Your task to perform on an android device: change alarm snooze length Image 0: 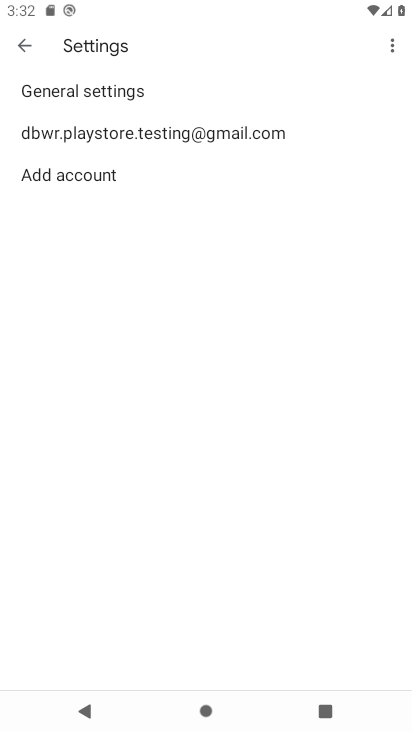
Step 0: press home button
Your task to perform on an android device: change alarm snooze length Image 1: 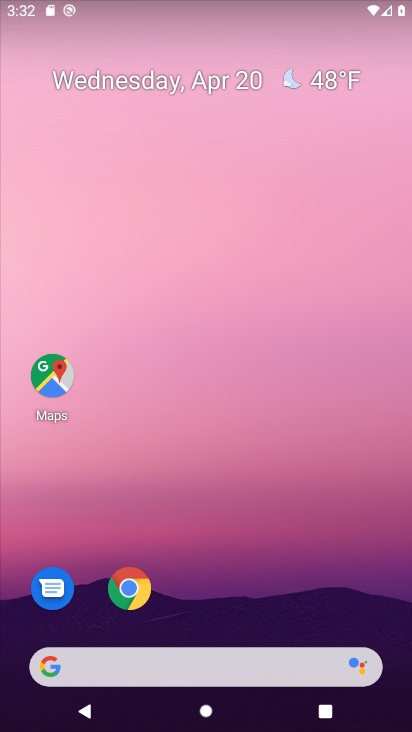
Step 1: drag from (321, 607) to (332, 171)
Your task to perform on an android device: change alarm snooze length Image 2: 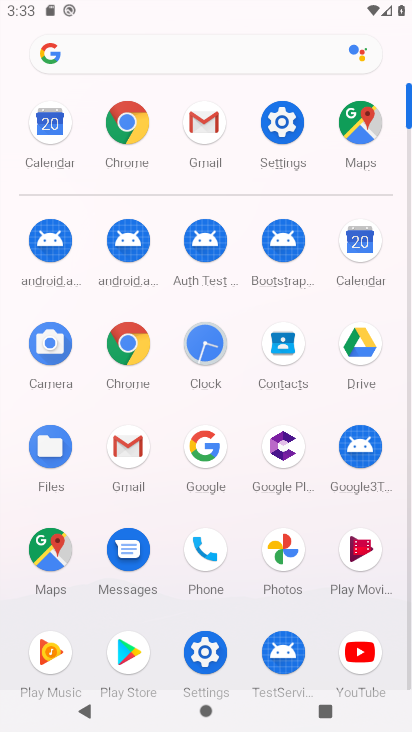
Step 2: click (210, 357)
Your task to perform on an android device: change alarm snooze length Image 3: 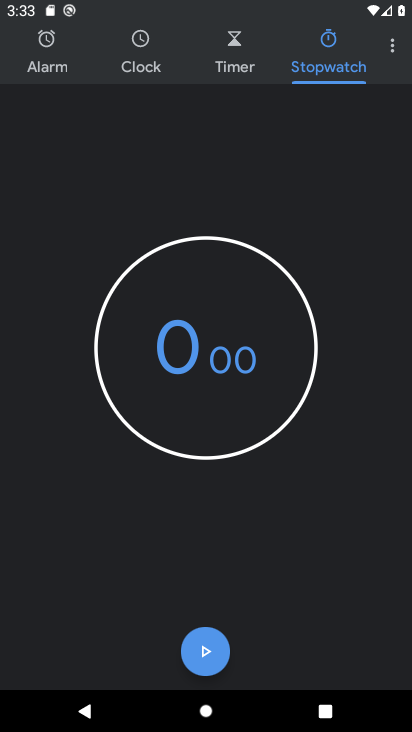
Step 3: click (394, 49)
Your task to perform on an android device: change alarm snooze length Image 4: 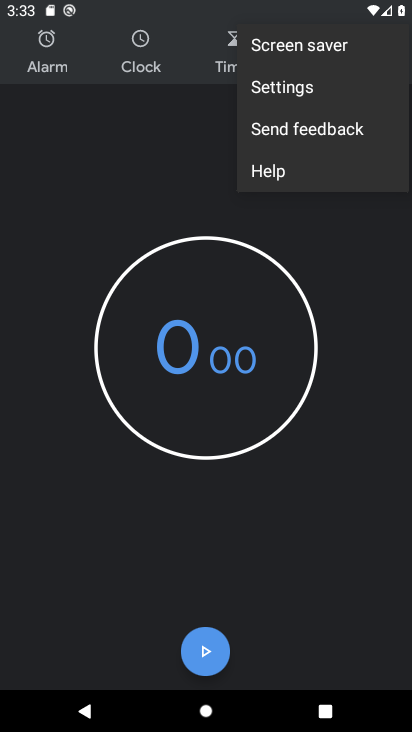
Step 4: click (317, 93)
Your task to perform on an android device: change alarm snooze length Image 5: 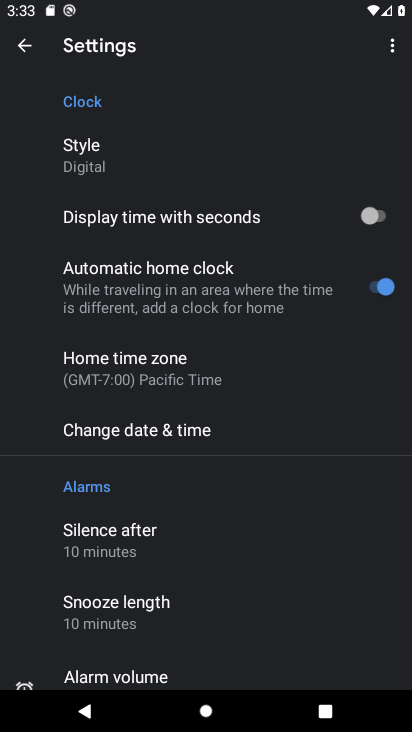
Step 5: drag from (328, 525) to (324, 390)
Your task to perform on an android device: change alarm snooze length Image 6: 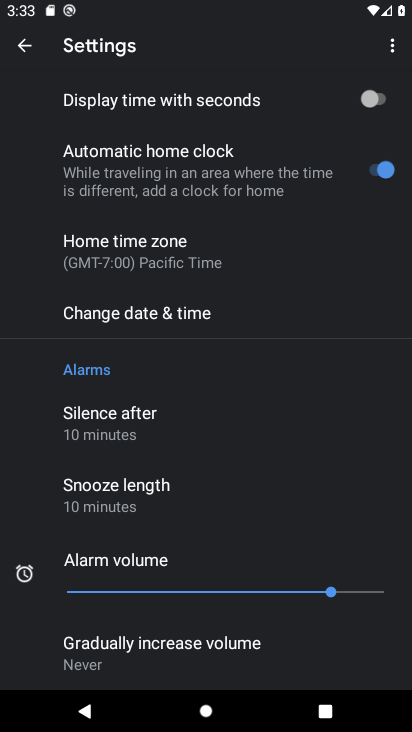
Step 6: drag from (316, 451) to (313, 330)
Your task to perform on an android device: change alarm snooze length Image 7: 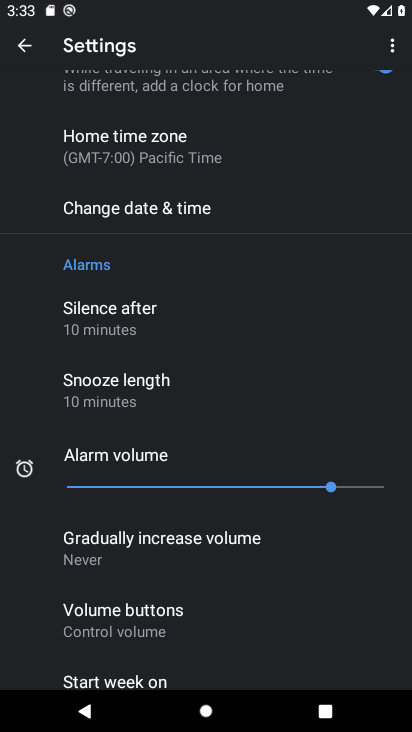
Step 7: drag from (345, 565) to (340, 380)
Your task to perform on an android device: change alarm snooze length Image 8: 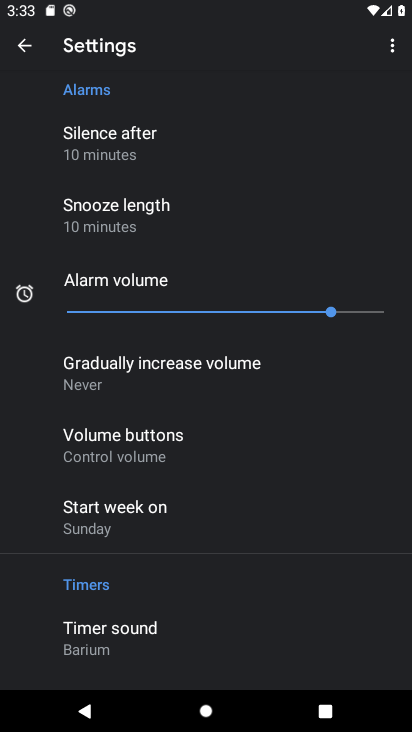
Step 8: drag from (345, 568) to (344, 443)
Your task to perform on an android device: change alarm snooze length Image 9: 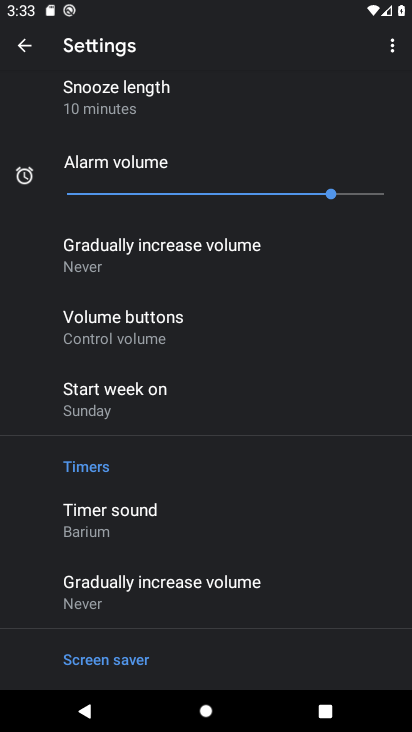
Step 9: drag from (339, 593) to (335, 422)
Your task to perform on an android device: change alarm snooze length Image 10: 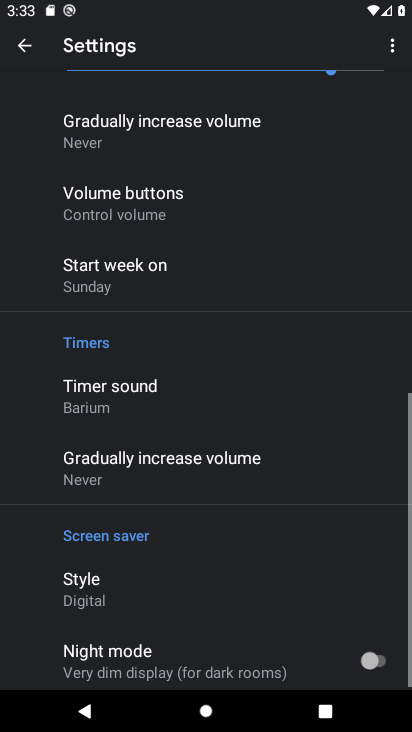
Step 10: drag from (323, 298) to (350, 507)
Your task to perform on an android device: change alarm snooze length Image 11: 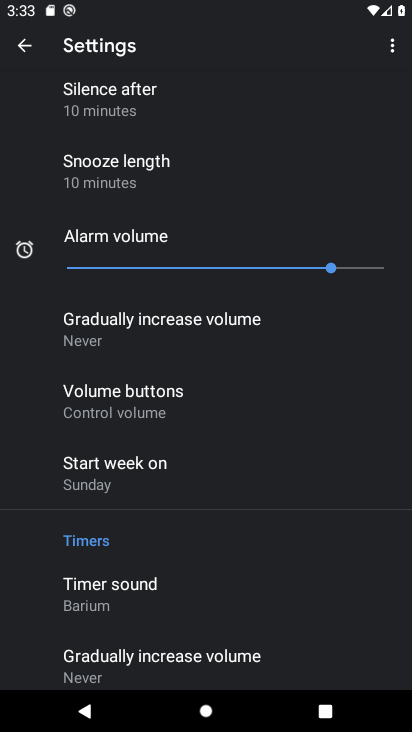
Step 11: drag from (310, 353) to (335, 543)
Your task to perform on an android device: change alarm snooze length Image 12: 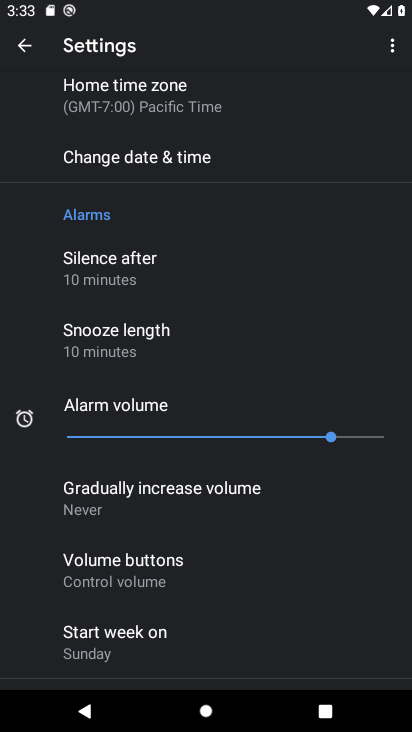
Step 12: drag from (288, 360) to (284, 506)
Your task to perform on an android device: change alarm snooze length Image 13: 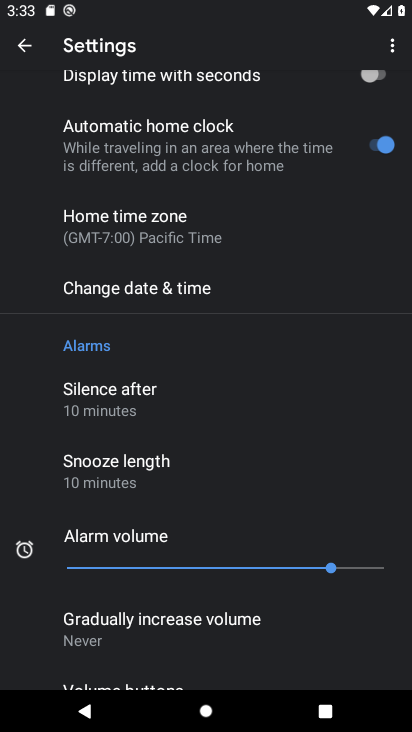
Step 13: click (133, 479)
Your task to perform on an android device: change alarm snooze length Image 14: 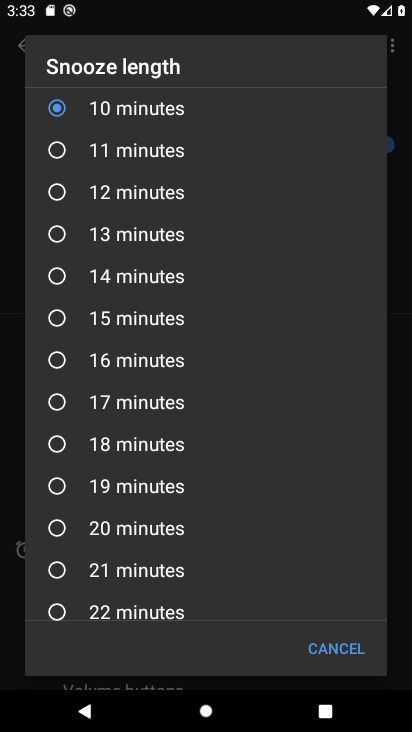
Step 14: click (83, 269)
Your task to perform on an android device: change alarm snooze length Image 15: 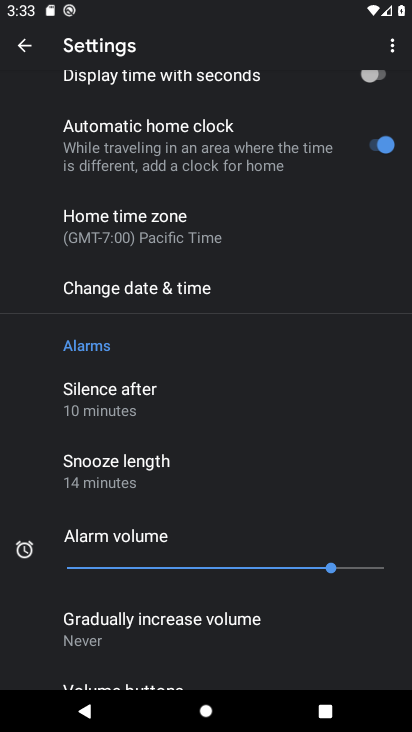
Step 15: task complete